Your task to perform on an android device: See recent photos Image 0: 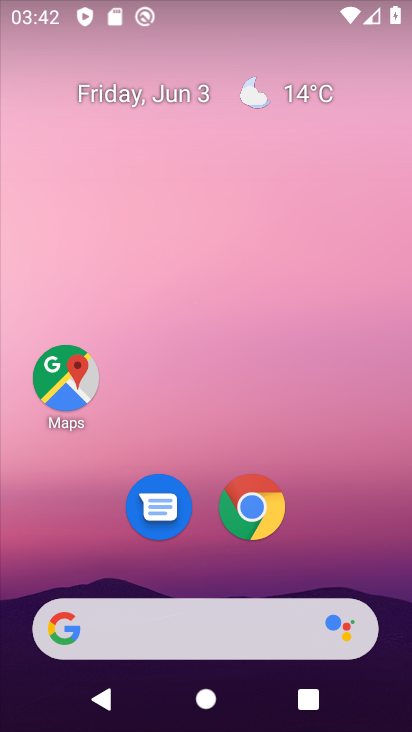
Step 0: drag from (204, 571) to (243, 30)
Your task to perform on an android device: See recent photos Image 1: 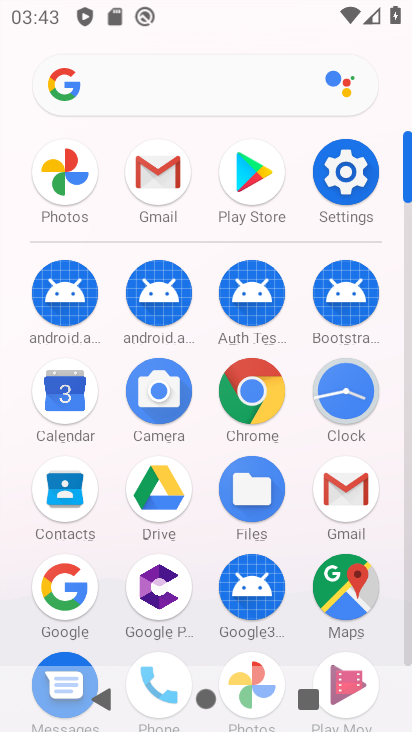
Step 1: click (72, 178)
Your task to perform on an android device: See recent photos Image 2: 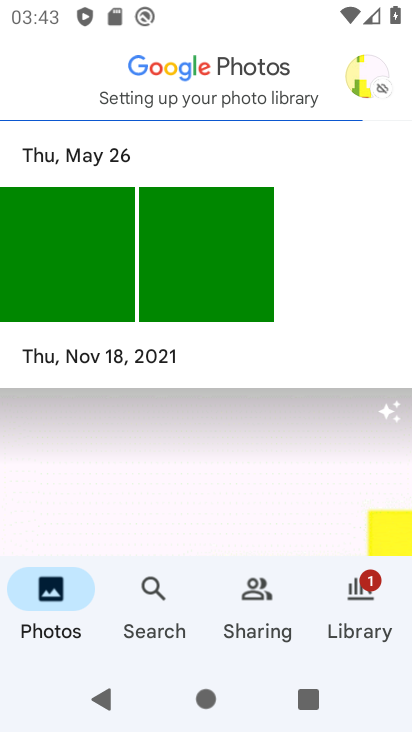
Step 2: click (45, 592)
Your task to perform on an android device: See recent photos Image 3: 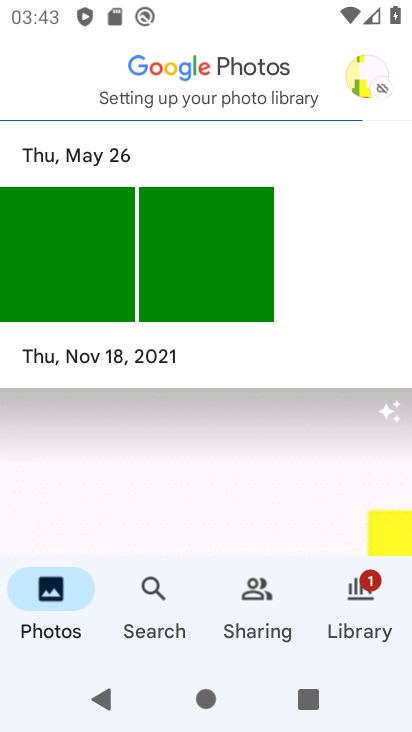
Step 3: task complete